Your task to perform on an android device: Open settings on Google Maps Image 0: 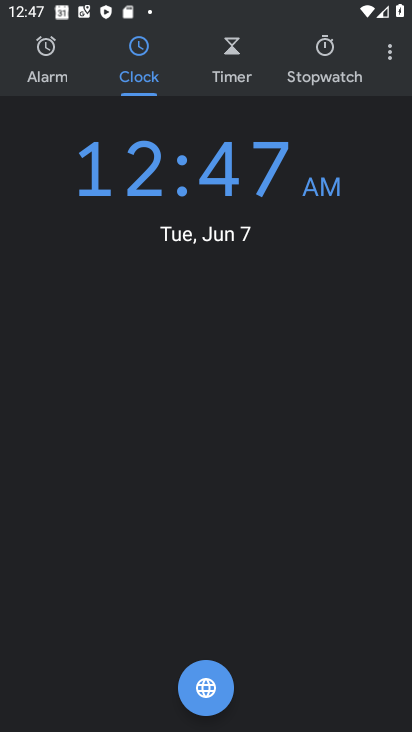
Step 0: press back button
Your task to perform on an android device: Open settings on Google Maps Image 1: 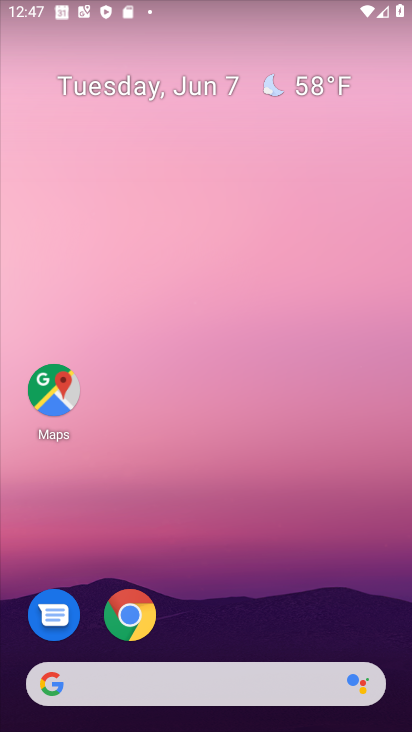
Step 1: click (54, 394)
Your task to perform on an android device: Open settings on Google Maps Image 2: 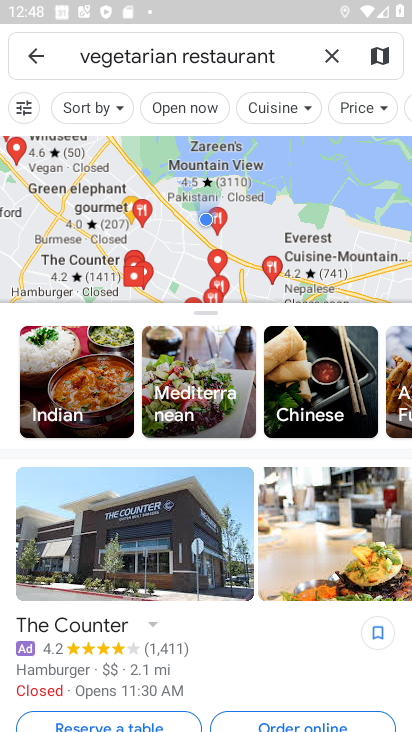
Step 2: click (337, 58)
Your task to perform on an android device: Open settings on Google Maps Image 3: 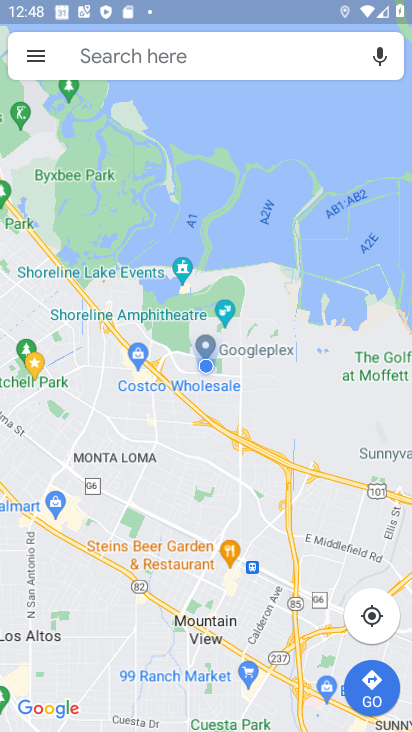
Step 3: click (34, 55)
Your task to perform on an android device: Open settings on Google Maps Image 4: 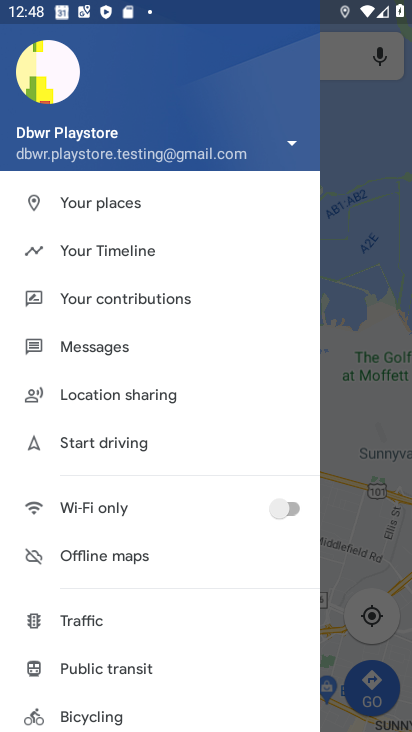
Step 4: drag from (94, 482) to (102, 269)
Your task to perform on an android device: Open settings on Google Maps Image 5: 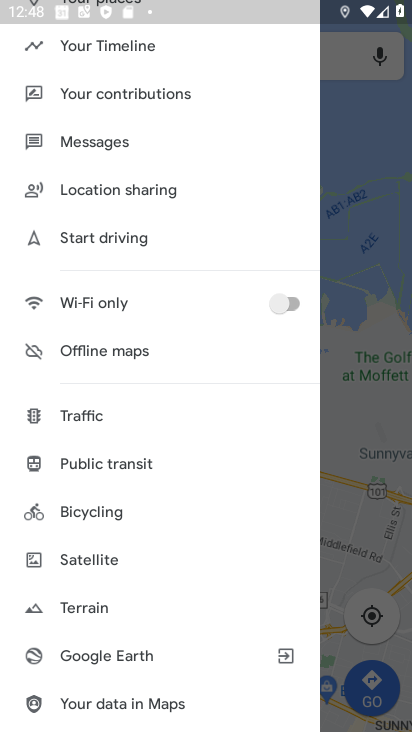
Step 5: drag from (137, 570) to (241, 213)
Your task to perform on an android device: Open settings on Google Maps Image 6: 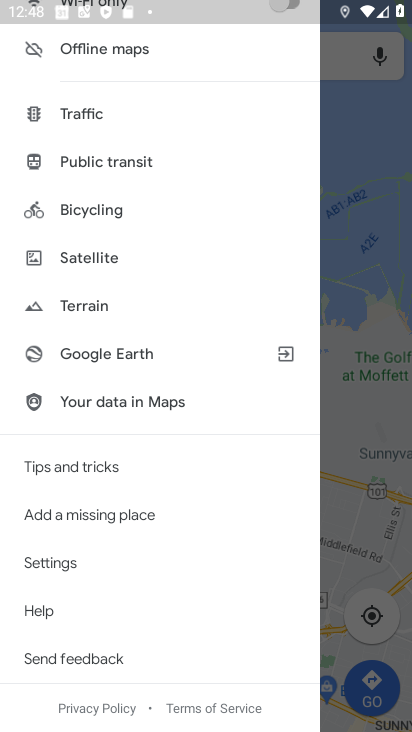
Step 6: click (62, 558)
Your task to perform on an android device: Open settings on Google Maps Image 7: 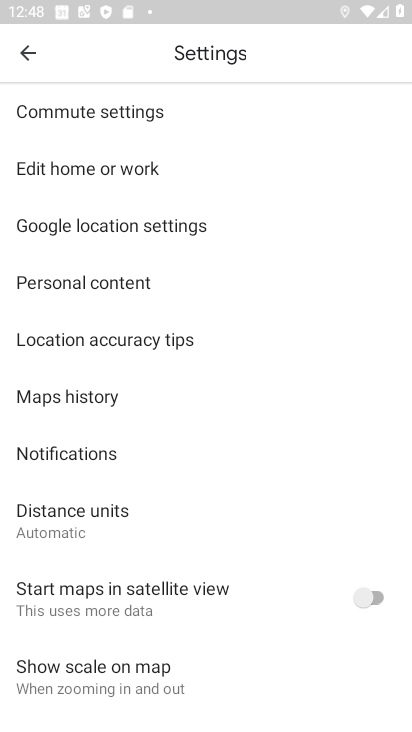
Step 7: task complete